Your task to perform on an android device: toggle airplane mode Image 0: 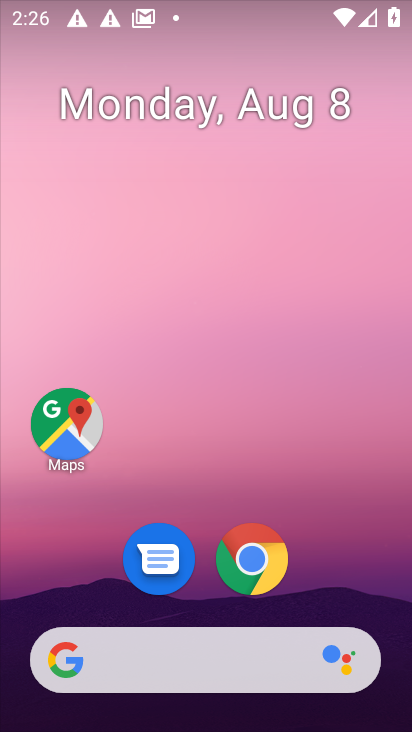
Step 0: drag from (190, 657) to (210, 233)
Your task to perform on an android device: toggle airplane mode Image 1: 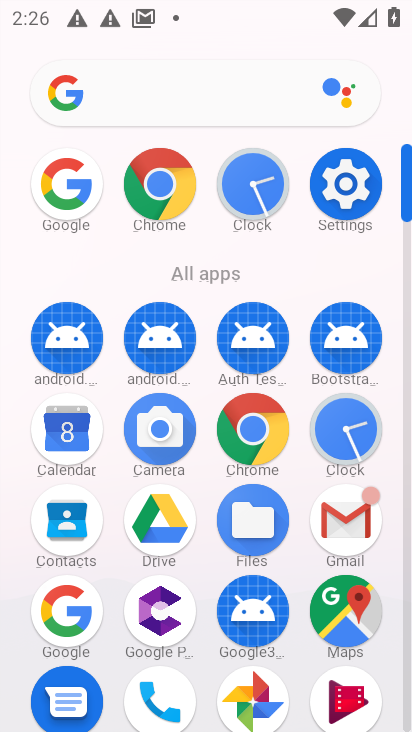
Step 1: click (343, 182)
Your task to perform on an android device: toggle airplane mode Image 2: 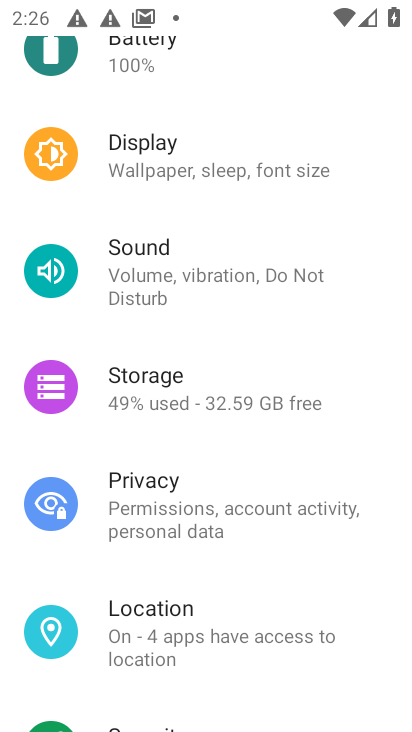
Step 2: drag from (197, 91) to (180, 233)
Your task to perform on an android device: toggle airplane mode Image 3: 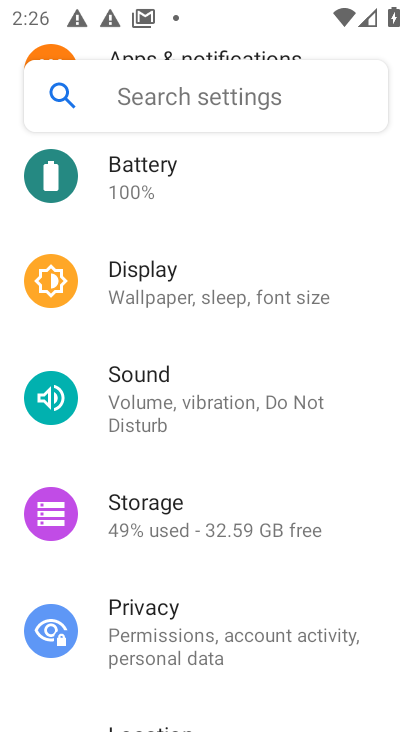
Step 3: drag from (210, 189) to (199, 408)
Your task to perform on an android device: toggle airplane mode Image 4: 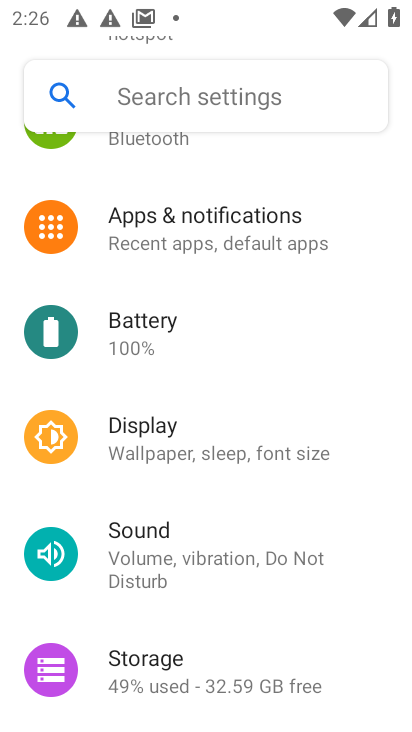
Step 4: drag from (233, 322) to (258, 495)
Your task to perform on an android device: toggle airplane mode Image 5: 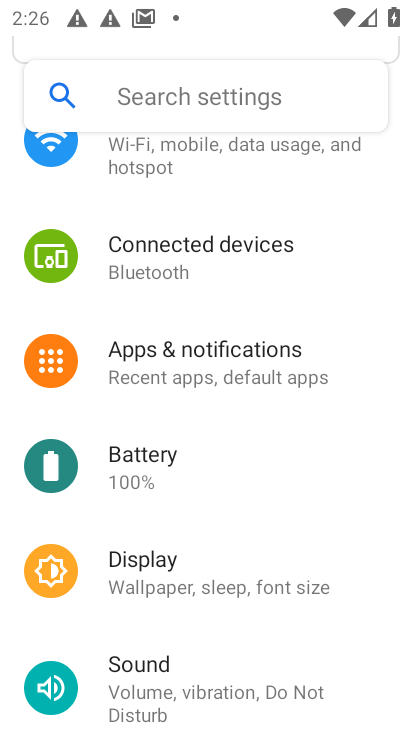
Step 5: drag from (234, 218) to (234, 372)
Your task to perform on an android device: toggle airplane mode Image 6: 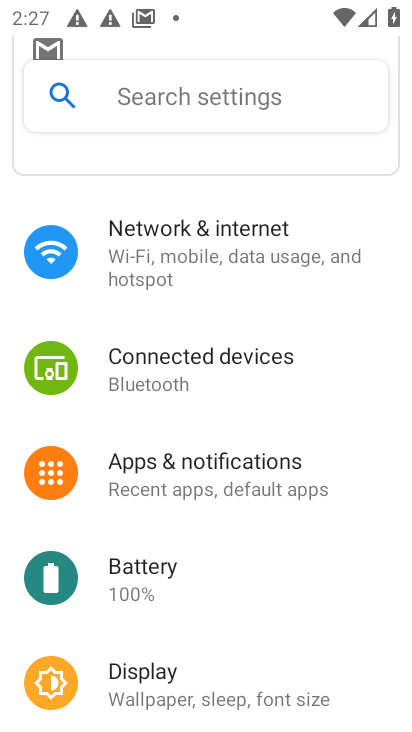
Step 6: click (228, 236)
Your task to perform on an android device: toggle airplane mode Image 7: 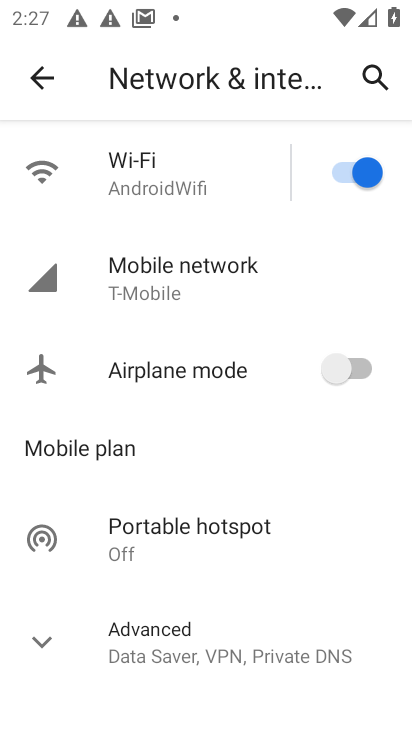
Step 7: click (338, 373)
Your task to perform on an android device: toggle airplane mode Image 8: 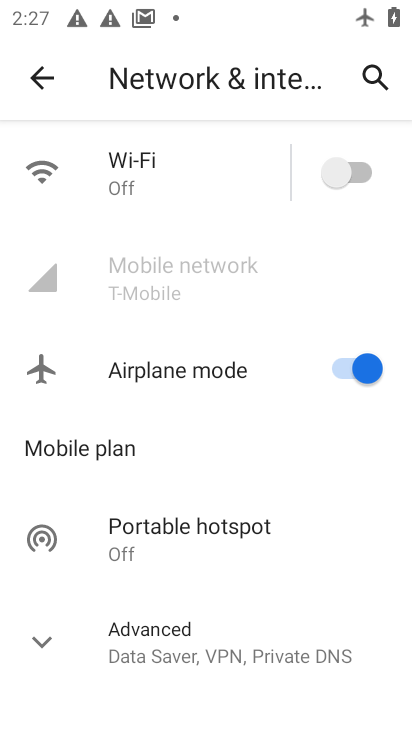
Step 8: task complete